Your task to perform on an android device: turn off javascript in the chrome app Image 0: 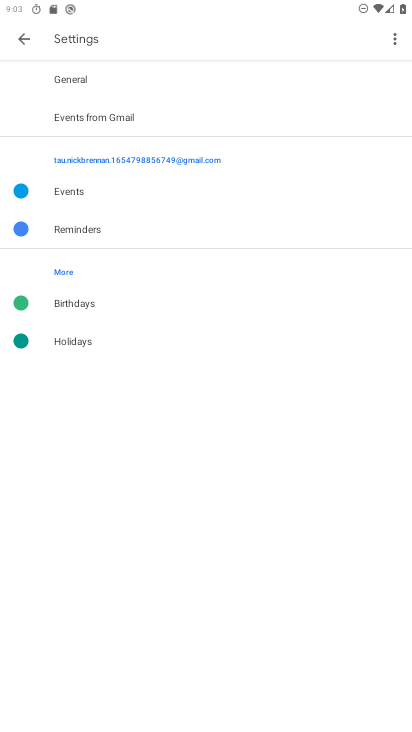
Step 0: press home button
Your task to perform on an android device: turn off javascript in the chrome app Image 1: 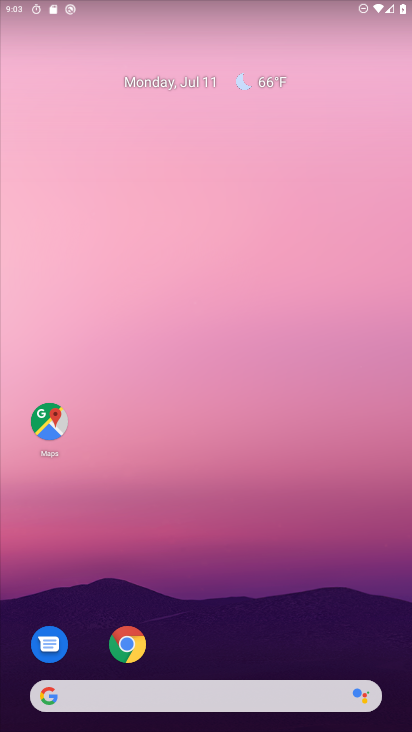
Step 1: drag from (257, 638) to (308, 178)
Your task to perform on an android device: turn off javascript in the chrome app Image 2: 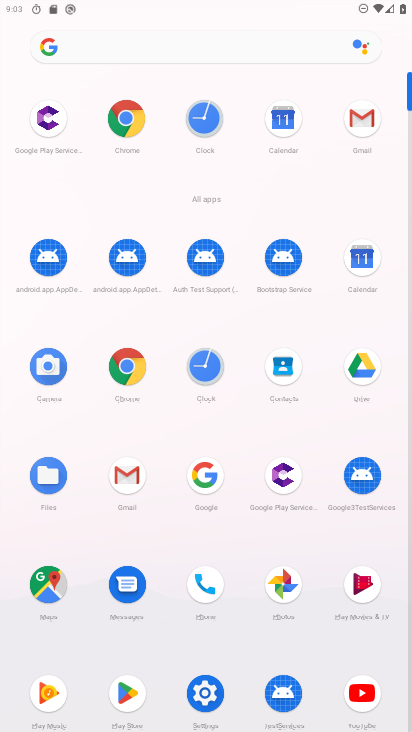
Step 2: click (130, 360)
Your task to perform on an android device: turn off javascript in the chrome app Image 3: 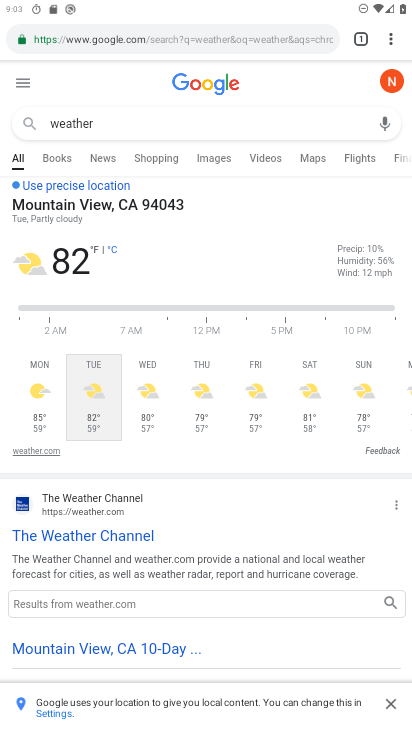
Step 3: drag from (394, 39) to (268, 477)
Your task to perform on an android device: turn off javascript in the chrome app Image 4: 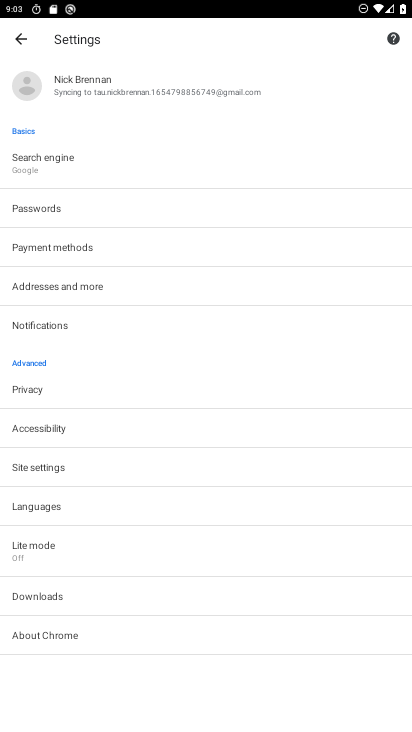
Step 4: click (58, 465)
Your task to perform on an android device: turn off javascript in the chrome app Image 5: 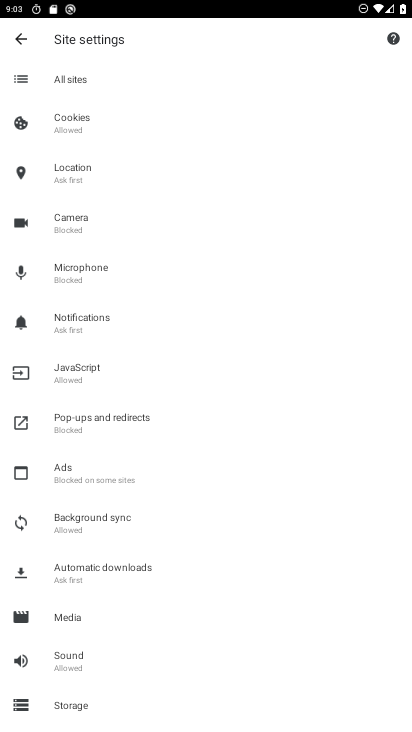
Step 5: click (98, 361)
Your task to perform on an android device: turn off javascript in the chrome app Image 6: 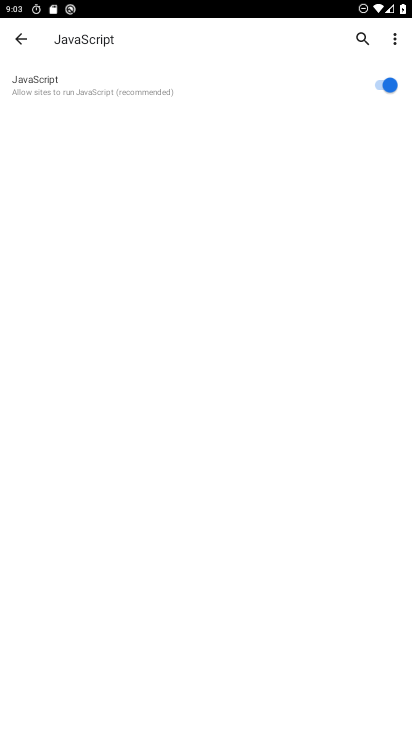
Step 6: click (382, 79)
Your task to perform on an android device: turn off javascript in the chrome app Image 7: 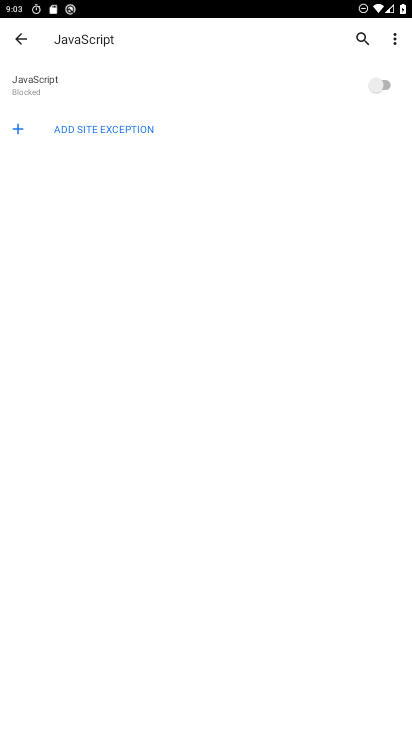
Step 7: task complete